Your task to perform on an android device: remove spam from my inbox in the gmail app Image 0: 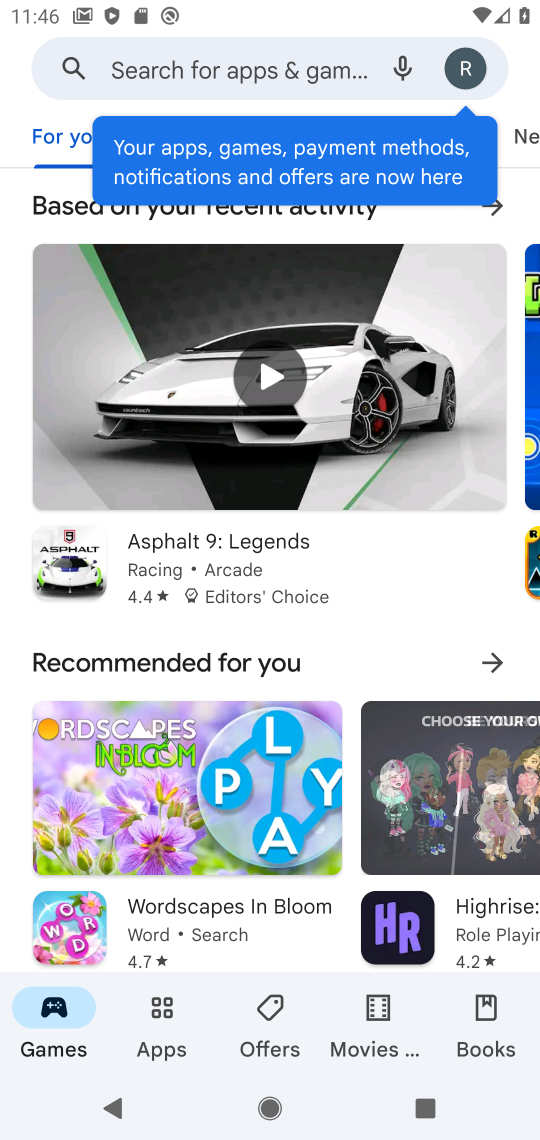
Step 0: press home button
Your task to perform on an android device: remove spam from my inbox in the gmail app Image 1: 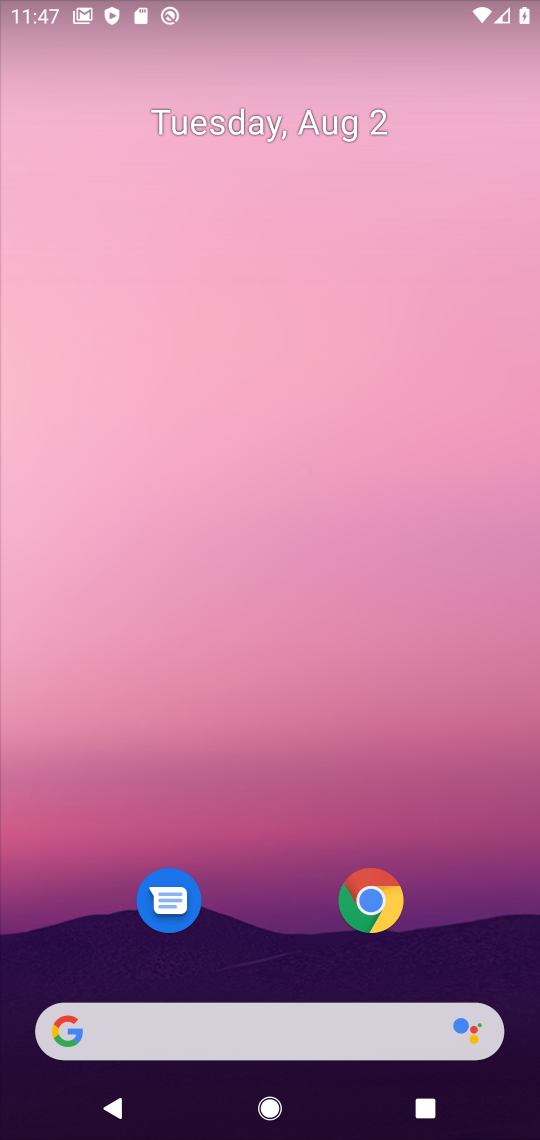
Step 1: drag from (262, 934) to (236, 71)
Your task to perform on an android device: remove spam from my inbox in the gmail app Image 2: 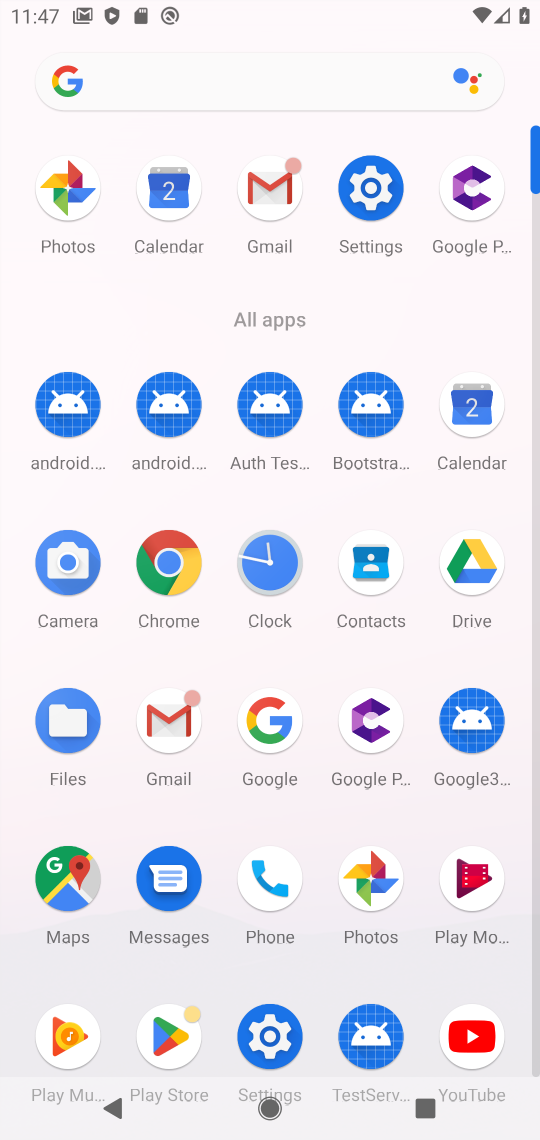
Step 2: click (172, 718)
Your task to perform on an android device: remove spam from my inbox in the gmail app Image 3: 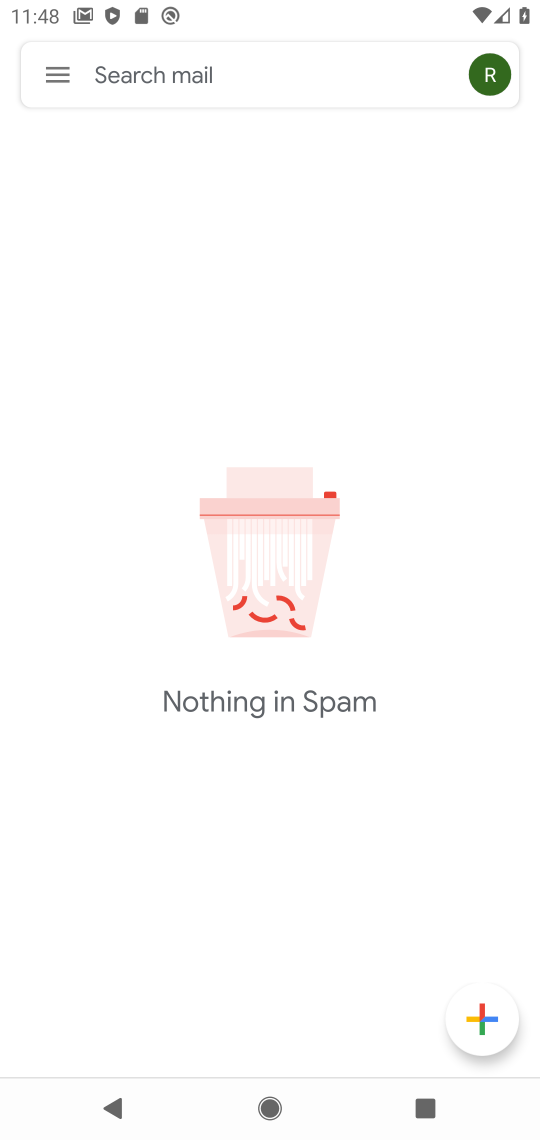
Step 3: task complete